Your task to perform on an android device: Go to network settings Image 0: 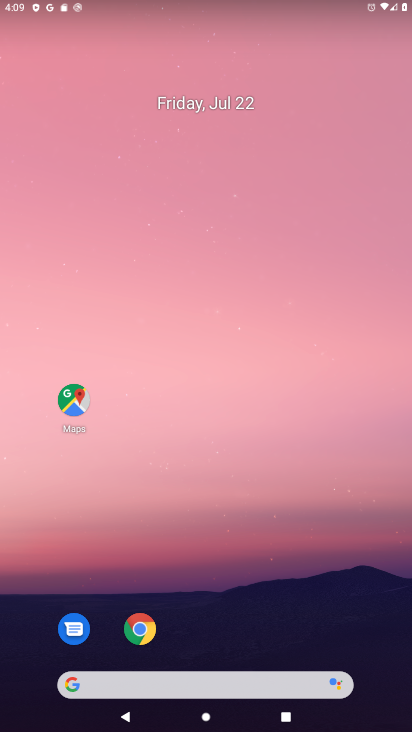
Step 0: press home button
Your task to perform on an android device: Go to network settings Image 1: 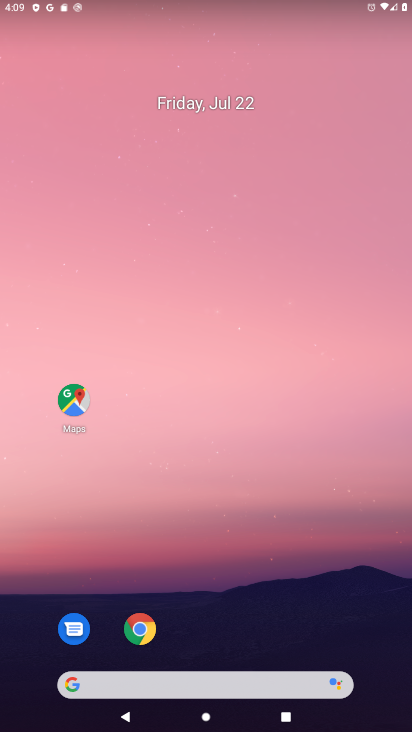
Step 1: drag from (206, 677) to (259, 196)
Your task to perform on an android device: Go to network settings Image 2: 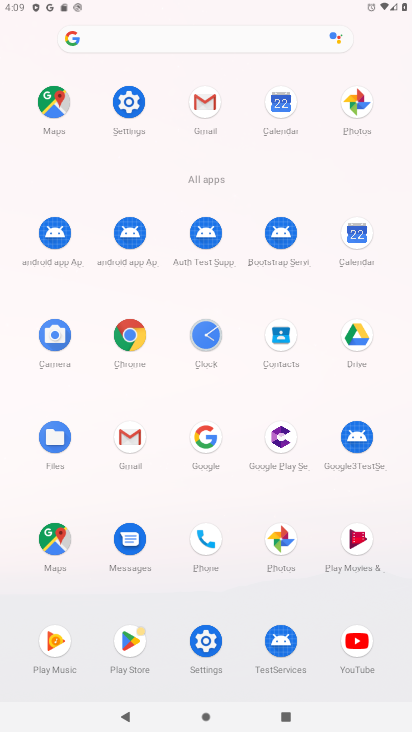
Step 2: click (128, 130)
Your task to perform on an android device: Go to network settings Image 3: 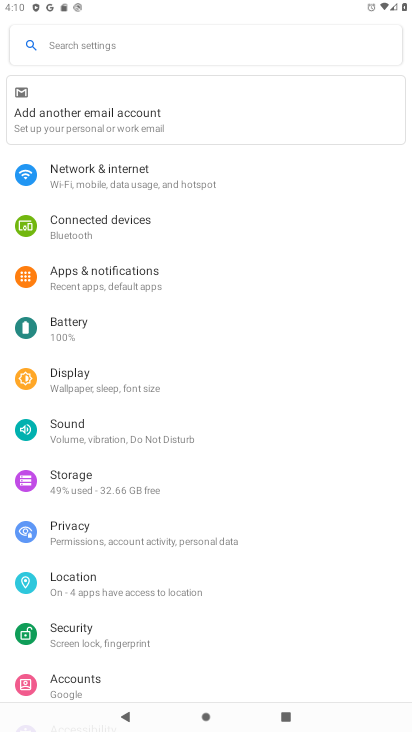
Step 3: click (129, 177)
Your task to perform on an android device: Go to network settings Image 4: 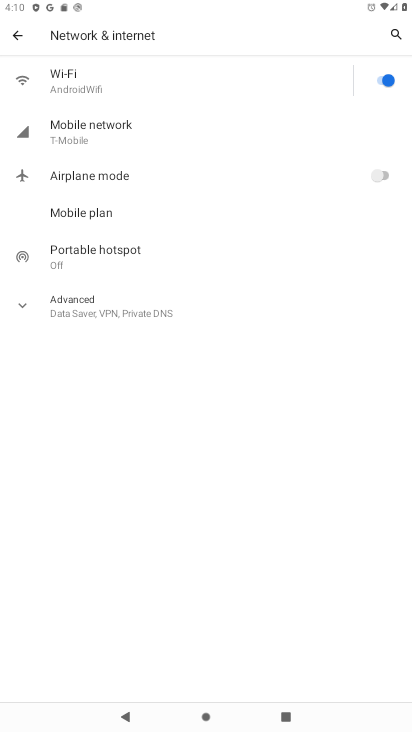
Step 4: click (106, 144)
Your task to perform on an android device: Go to network settings Image 5: 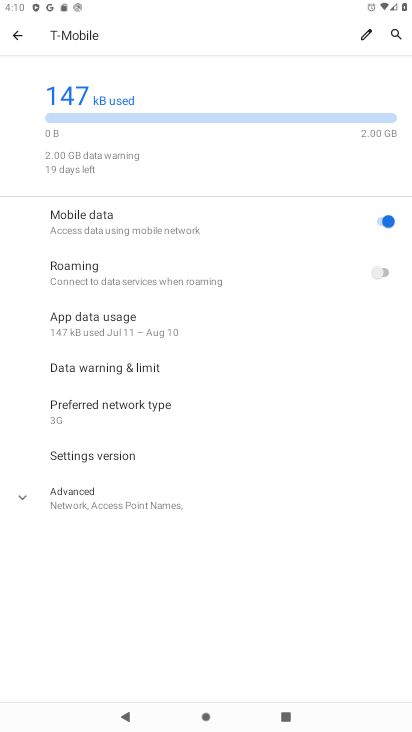
Step 5: click (144, 324)
Your task to perform on an android device: Go to network settings Image 6: 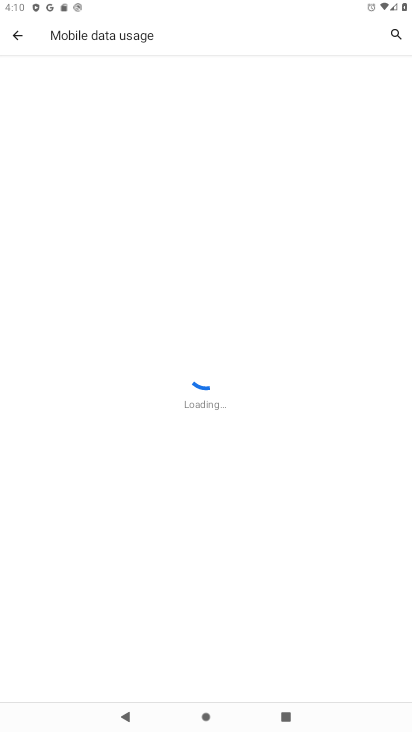
Step 6: task complete